Your task to perform on an android device: turn off smart reply in the gmail app Image 0: 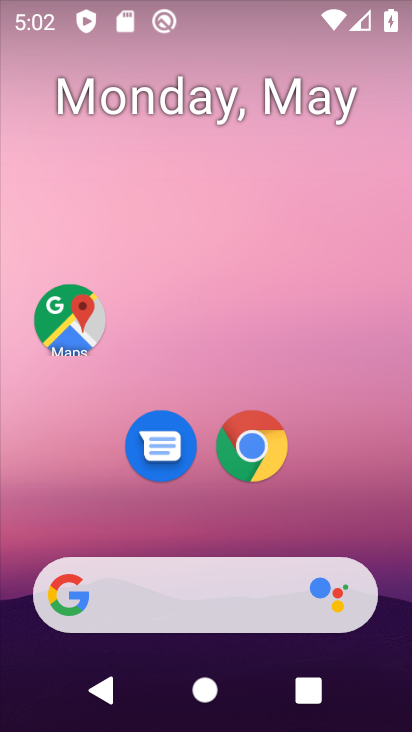
Step 0: drag from (283, 376) to (230, 92)
Your task to perform on an android device: turn off smart reply in the gmail app Image 1: 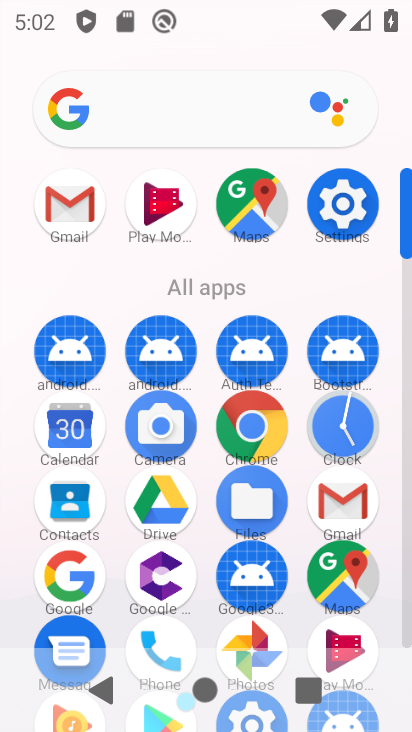
Step 1: click (61, 197)
Your task to perform on an android device: turn off smart reply in the gmail app Image 2: 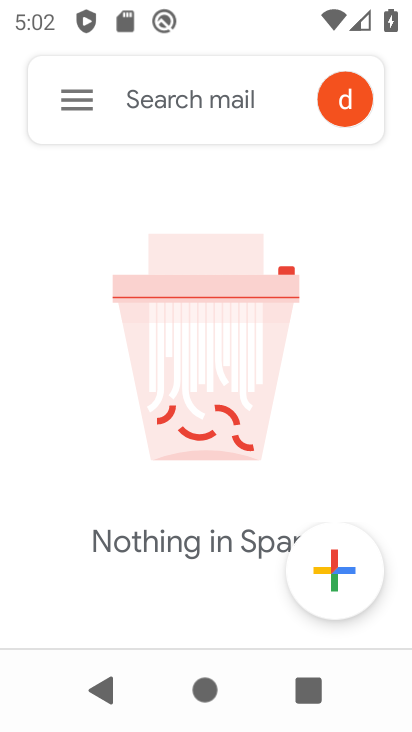
Step 2: click (70, 96)
Your task to perform on an android device: turn off smart reply in the gmail app Image 3: 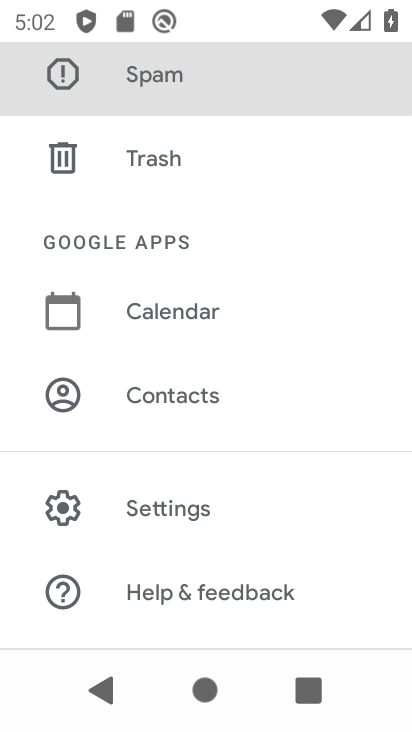
Step 3: click (166, 504)
Your task to perform on an android device: turn off smart reply in the gmail app Image 4: 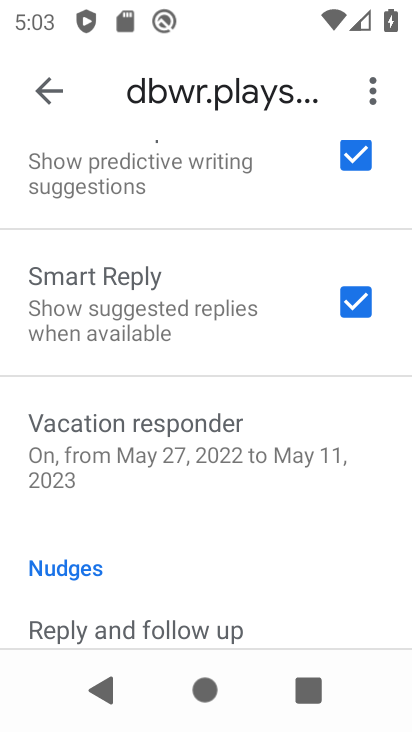
Step 4: click (338, 301)
Your task to perform on an android device: turn off smart reply in the gmail app Image 5: 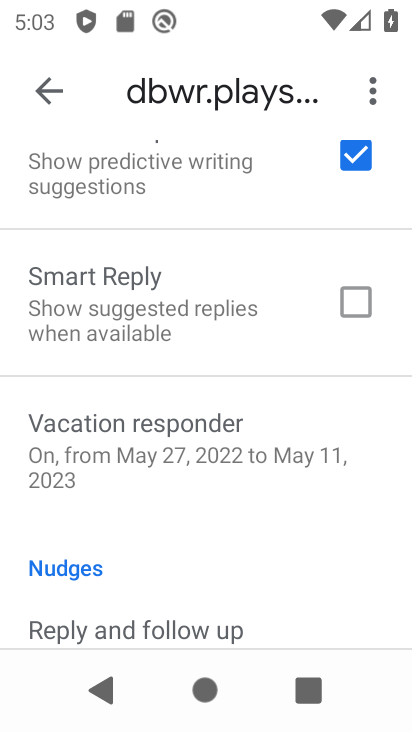
Step 5: task complete